Your task to perform on an android device: change alarm snooze length Image 0: 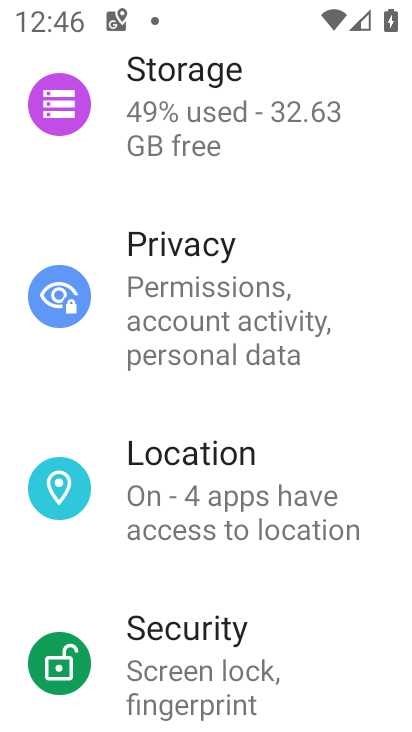
Step 0: press back button
Your task to perform on an android device: change alarm snooze length Image 1: 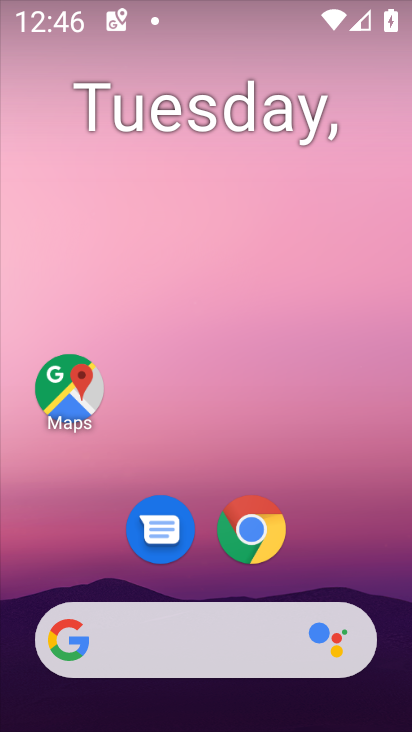
Step 1: drag from (159, 585) to (278, 33)
Your task to perform on an android device: change alarm snooze length Image 2: 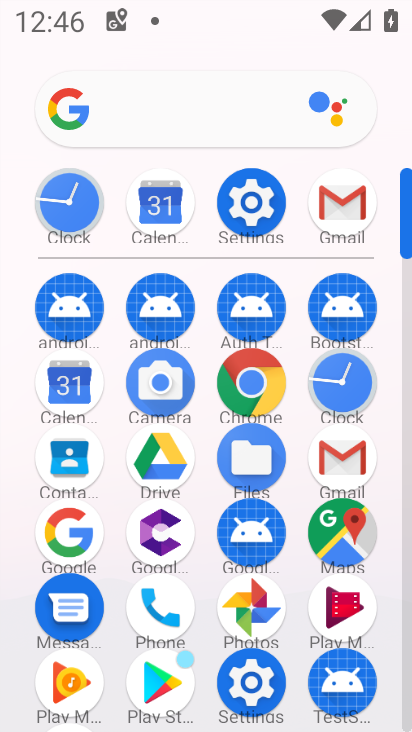
Step 2: click (342, 382)
Your task to perform on an android device: change alarm snooze length Image 3: 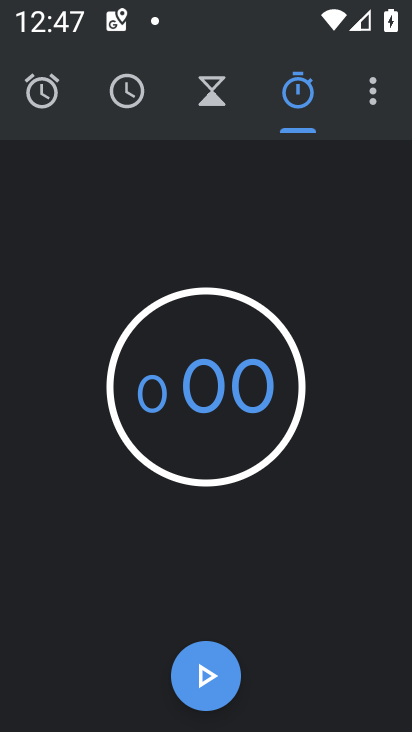
Step 3: click (366, 83)
Your task to perform on an android device: change alarm snooze length Image 4: 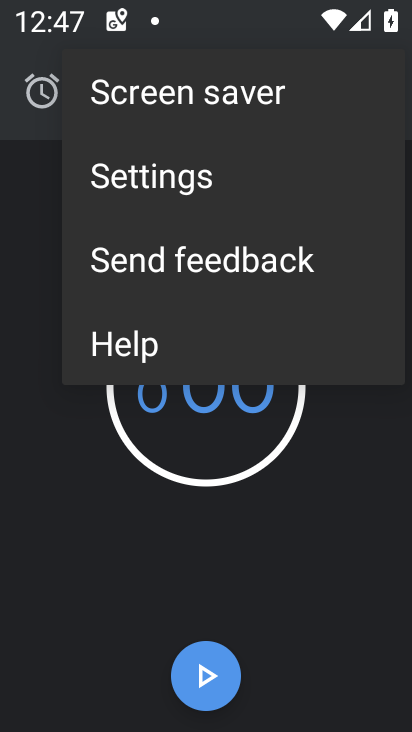
Step 4: click (206, 157)
Your task to perform on an android device: change alarm snooze length Image 5: 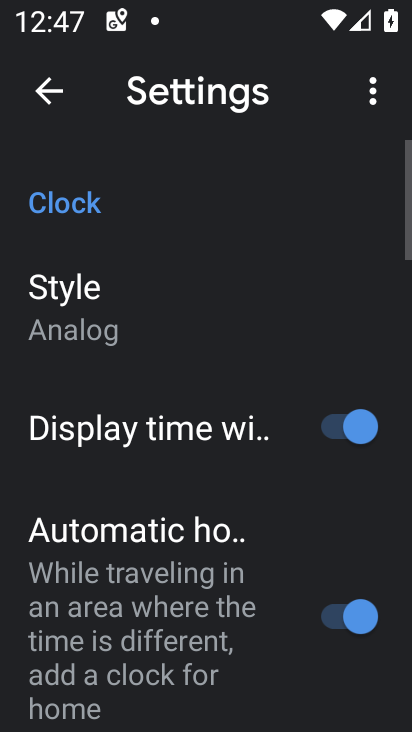
Step 5: drag from (143, 615) to (230, 80)
Your task to perform on an android device: change alarm snooze length Image 6: 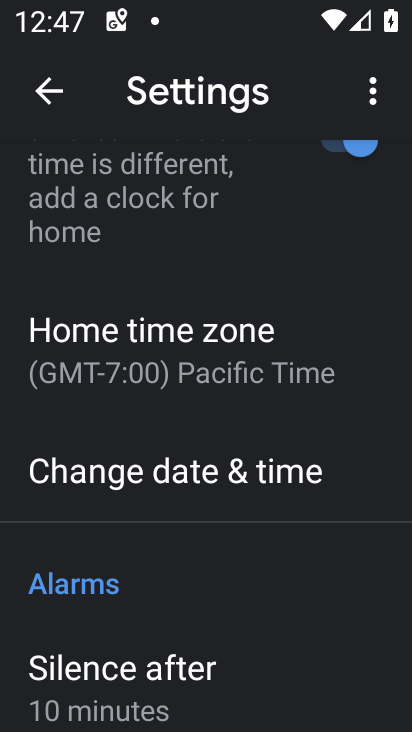
Step 6: drag from (137, 645) to (207, 153)
Your task to perform on an android device: change alarm snooze length Image 7: 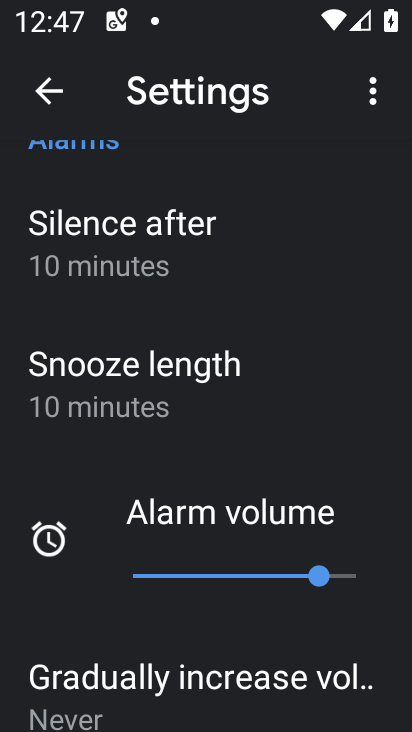
Step 7: click (135, 401)
Your task to perform on an android device: change alarm snooze length Image 8: 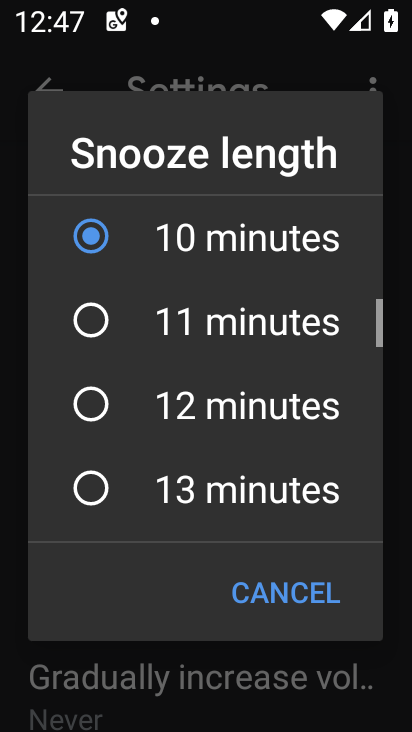
Step 8: click (210, 317)
Your task to perform on an android device: change alarm snooze length Image 9: 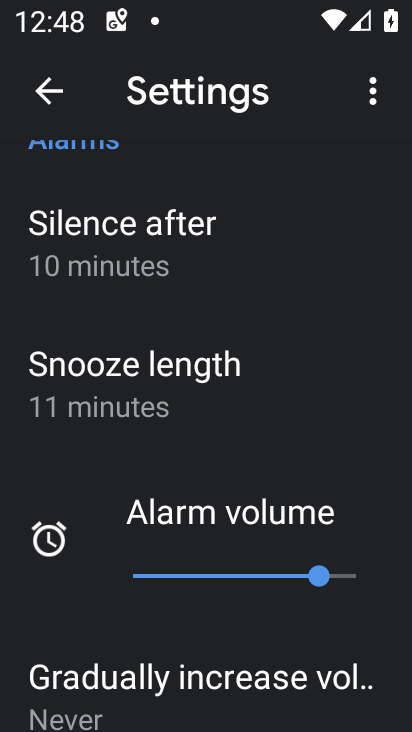
Step 9: click (133, 389)
Your task to perform on an android device: change alarm snooze length Image 10: 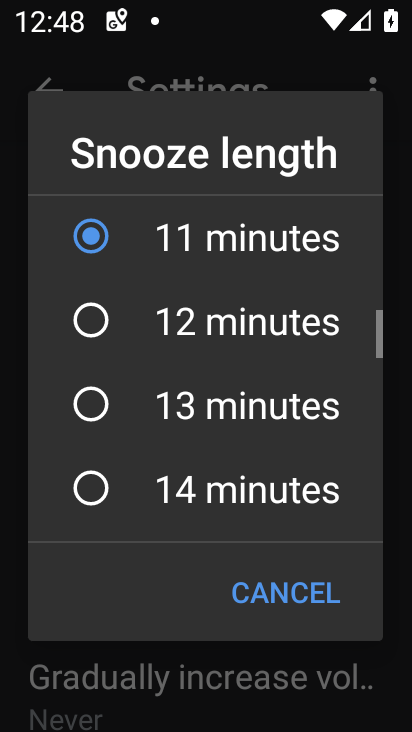
Step 10: click (105, 319)
Your task to perform on an android device: change alarm snooze length Image 11: 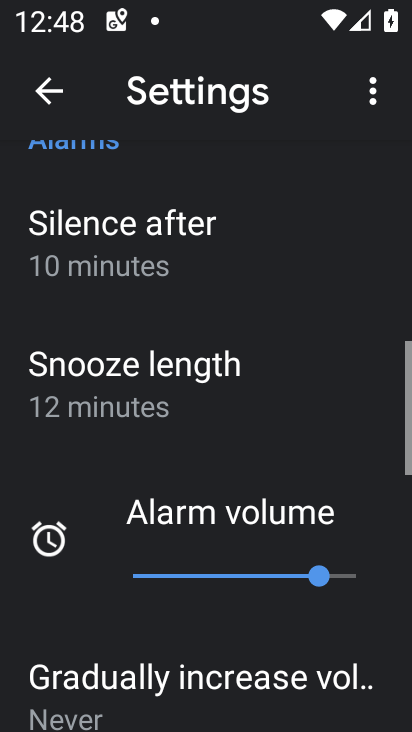
Step 11: task complete